Your task to perform on an android device: What's the weather? Image 0: 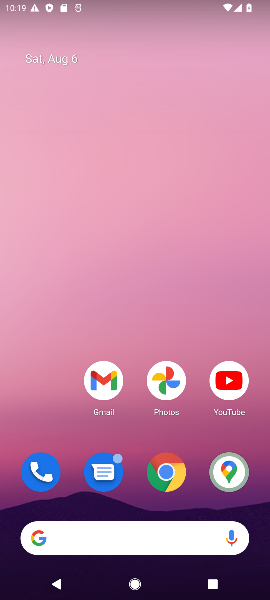
Step 0: drag from (209, 447) to (154, 7)
Your task to perform on an android device: What's the weather? Image 1: 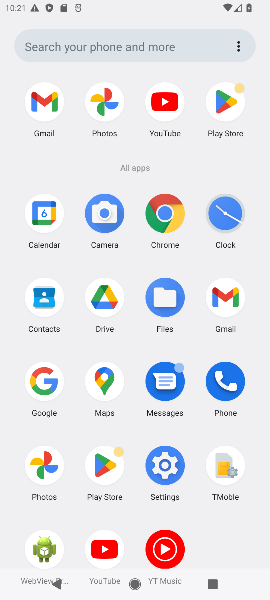
Step 1: click (52, 385)
Your task to perform on an android device: What's the weather? Image 2: 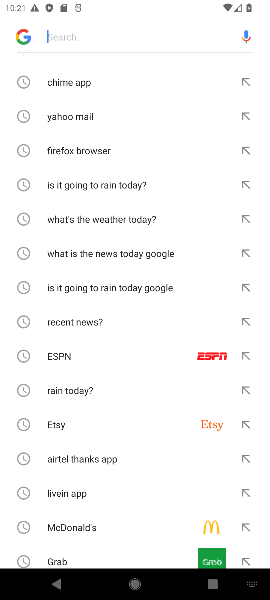
Step 2: type "What's the weather?"
Your task to perform on an android device: What's the weather? Image 3: 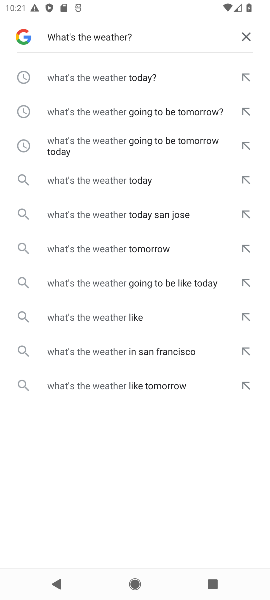
Step 3: click (113, 84)
Your task to perform on an android device: What's the weather? Image 4: 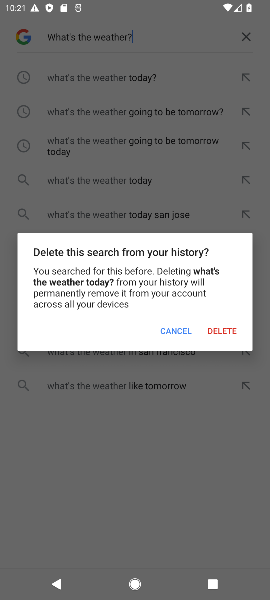
Step 4: click (173, 335)
Your task to perform on an android device: What's the weather? Image 5: 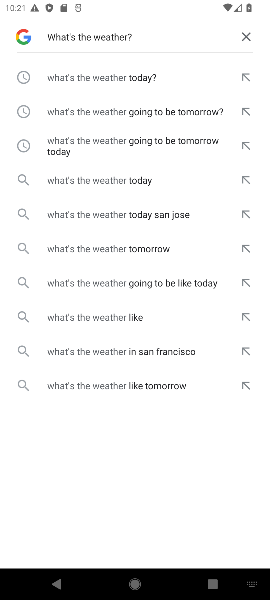
Step 5: click (98, 77)
Your task to perform on an android device: What's the weather? Image 6: 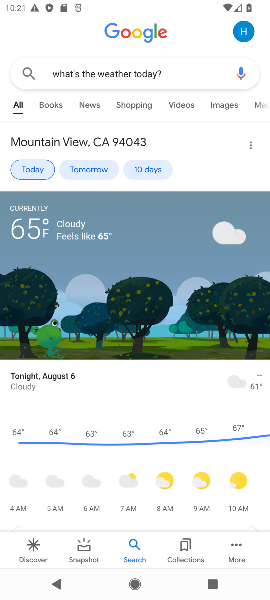
Step 6: task complete